Your task to perform on an android device: Go to accessibility settings Image 0: 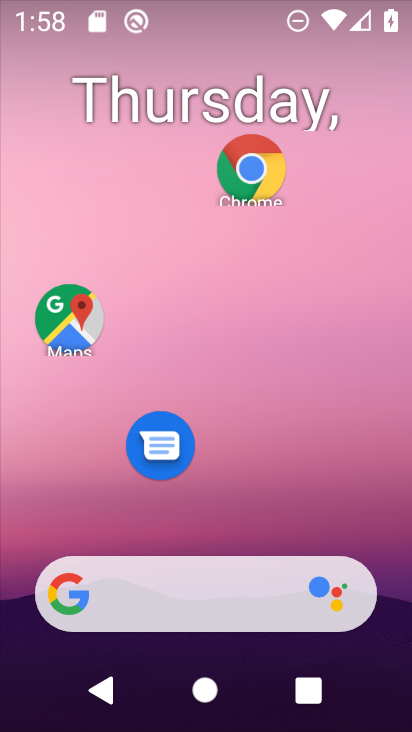
Step 0: drag from (199, 631) to (324, 159)
Your task to perform on an android device: Go to accessibility settings Image 1: 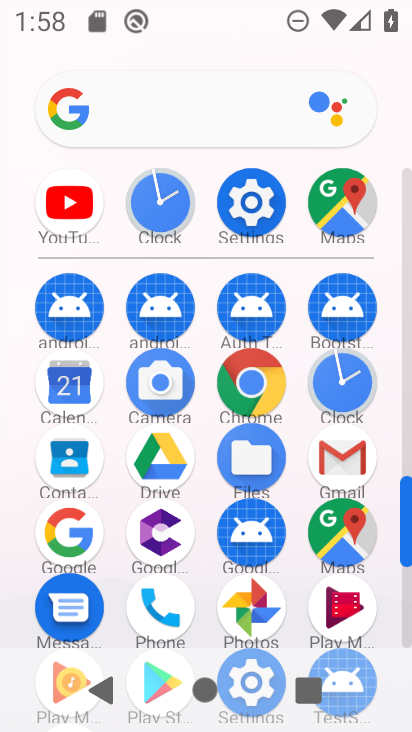
Step 1: click (238, 214)
Your task to perform on an android device: Go to accessibility settings Image 2: 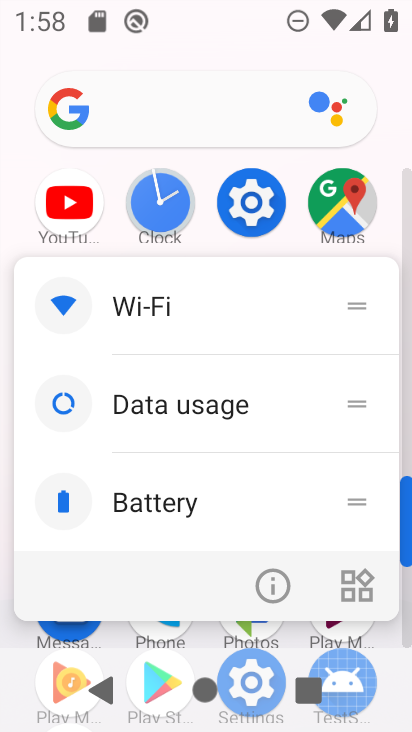
Step 2: click (238, 214)
Your task to perform on an android device: Go to accessibility settings Image 3: 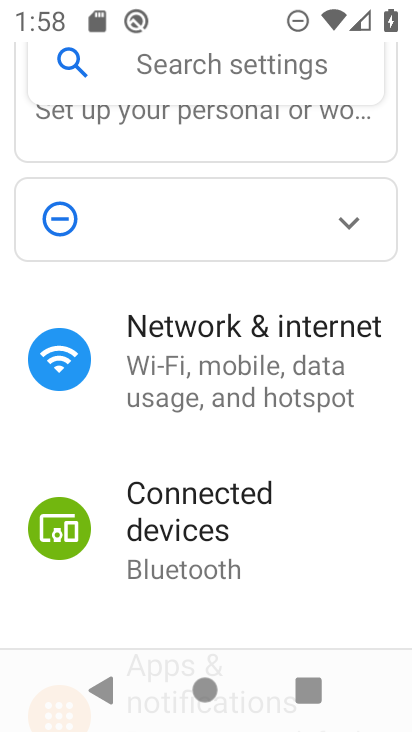
Step 3: click (219, 80)
Your task to perform on an android device: Go to accessibility settings Image 4: 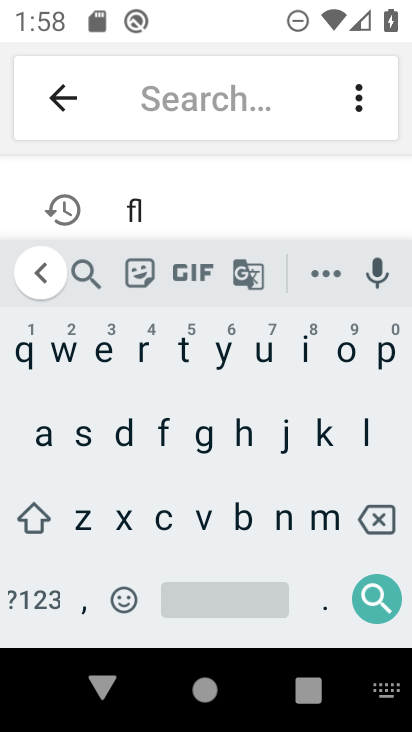
Step 4: click (51, 434)
Your task to perform on an android device: Go to accessibility settings Image 5: 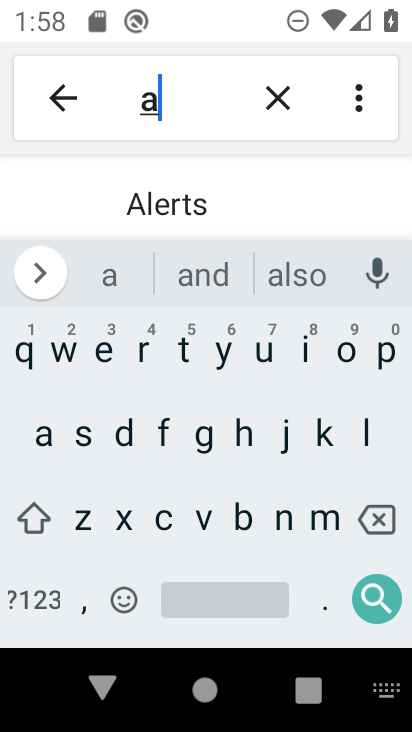
Step 5: click (163, 518)
Your task to perform on an android device: Go to accessibility settings Image 6: 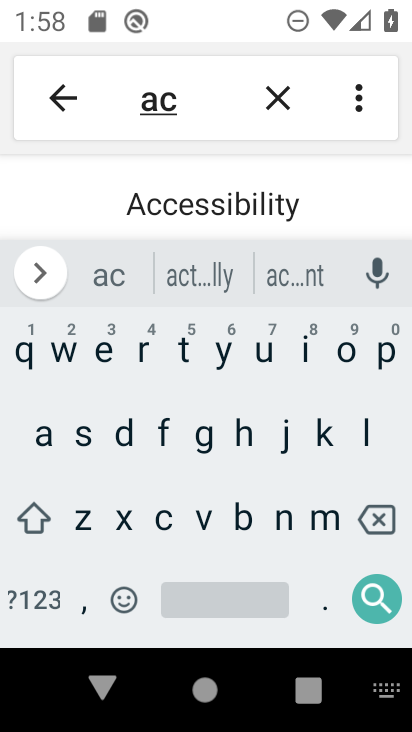
Step 6: click (213, 210)
Your task to perform on an android device: Go to accessibility settings Image 7: 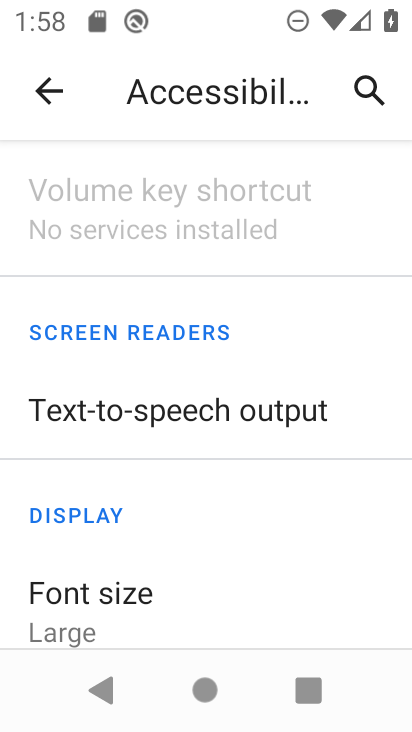
Step 7: task complete